Your task to perform on an android device: find snoozed emails in the gmail app Image 0: 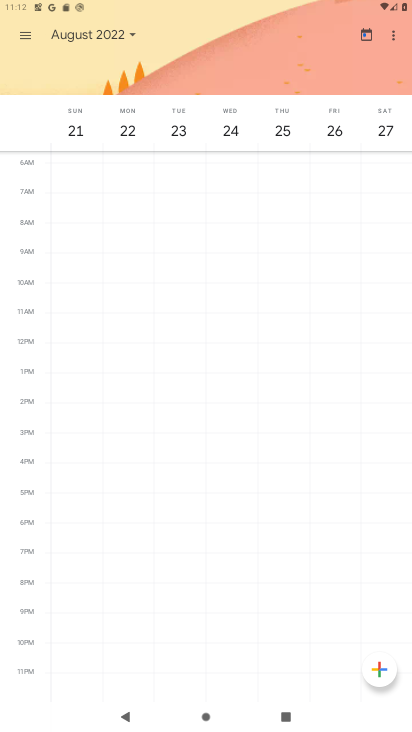
Step 0: press home button
Your task to perform on an android device: find snoozed emails in the gmail app Image 1: 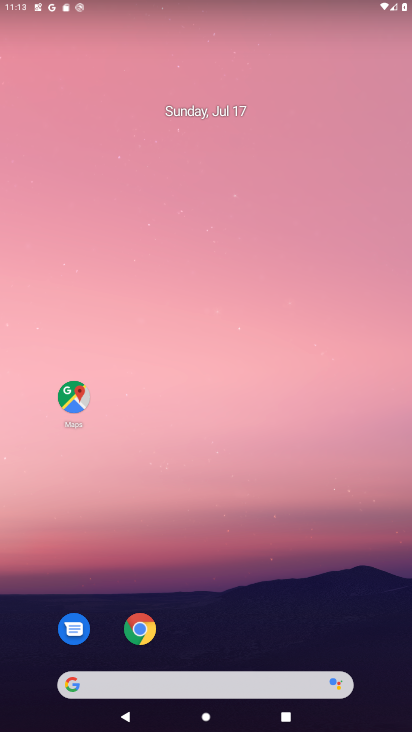
Step 1: drag from (183, 689) to (287, 72)
Your task to perform on an android device: find snoozed emails in the gmail app Image 2: 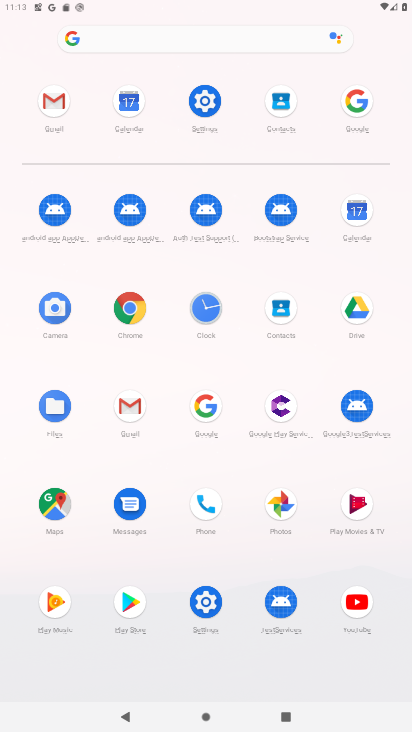
Step 2: click (54, 102)
Your task to perform on an android device: find snoozed emails in the gmail app Image 3: 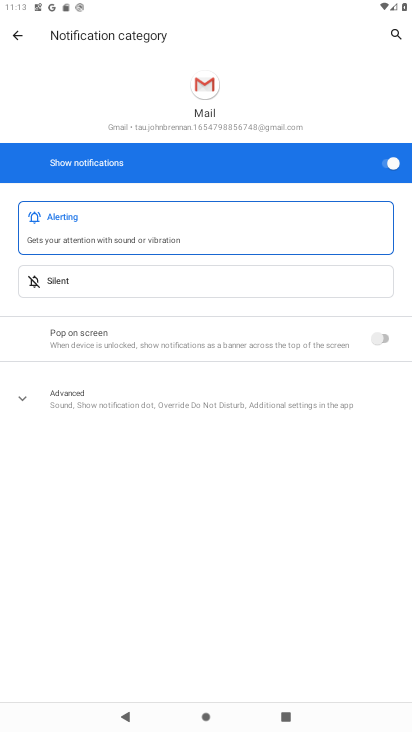
Step 3: press back button
Your task to perform on an android device: find snoozed emails in the gmail app Image 4: 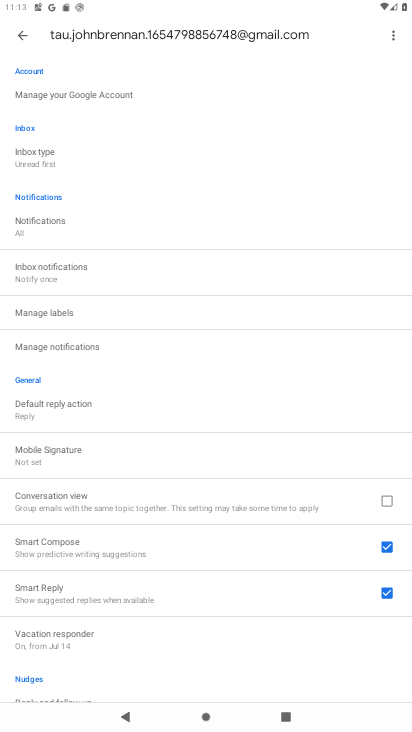
Step 4: press back button
Your task to perform on an android device: find snoozed emails in the gmail app Image 5: 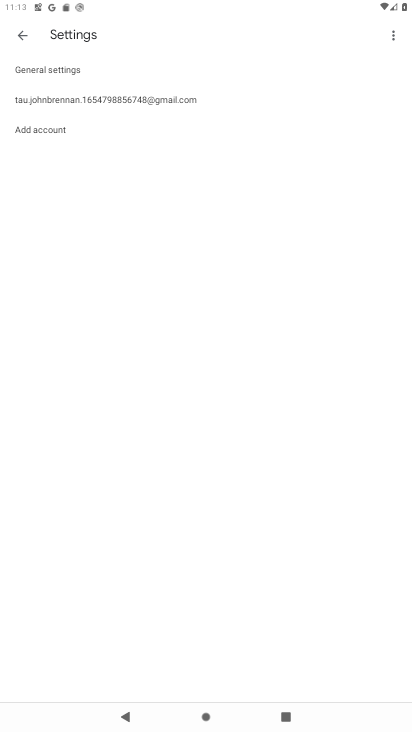
Step 5: press back button
Your task to perform on an android device: find snoozed emails in the gmail app Image 6: 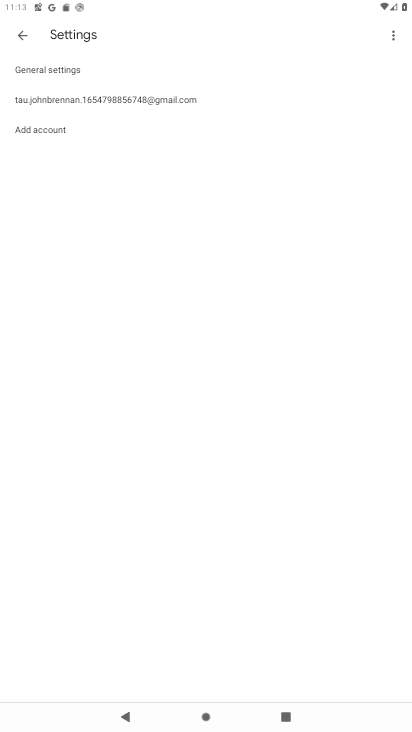
Step 6: press back button
Your task to perform on an android device: find snoozed emails in the gmail app Image 7: 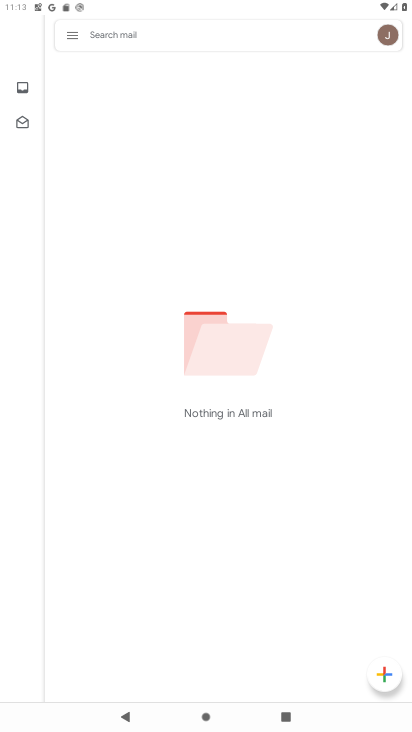
Step 7: click (73, 35)
Your task to perform on an android device: find snoozed emails in the gmail app Image 8: 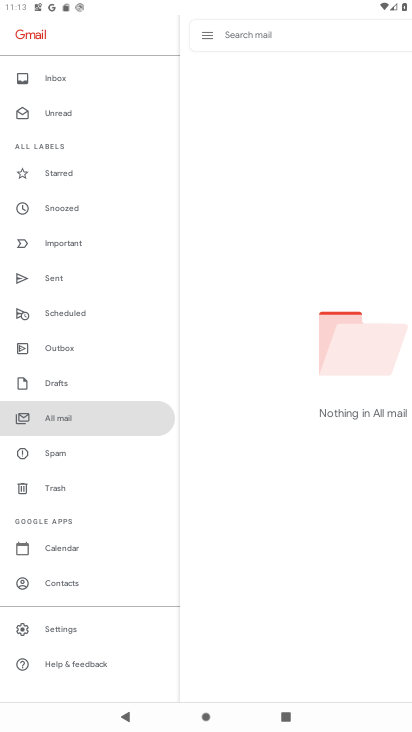
Step 8: click (70, 210)
Your task to perform on an android device: find snoozed emails in the gmail app Image 9: 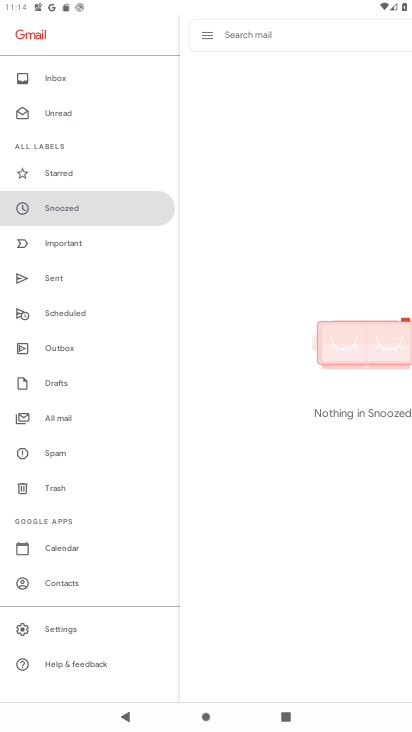
Step 9: click (72, 246)
Your task to perform on an android device: find snoozed emails in the gmail app Image 10: 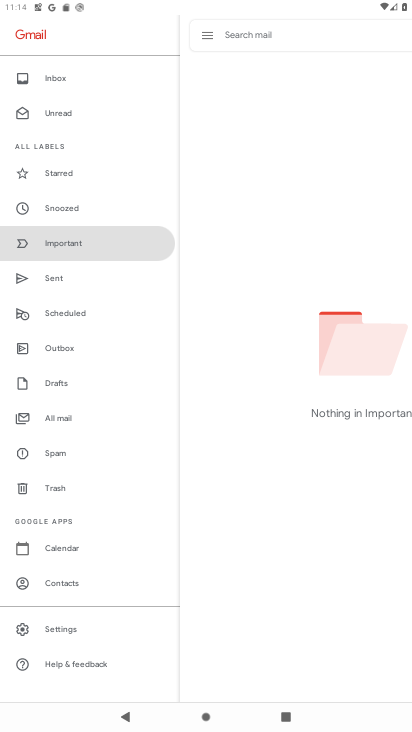
Step 10: click (60, 269)
Your task to perform on an android device: find snoozed emails in the gmail app Image 11: 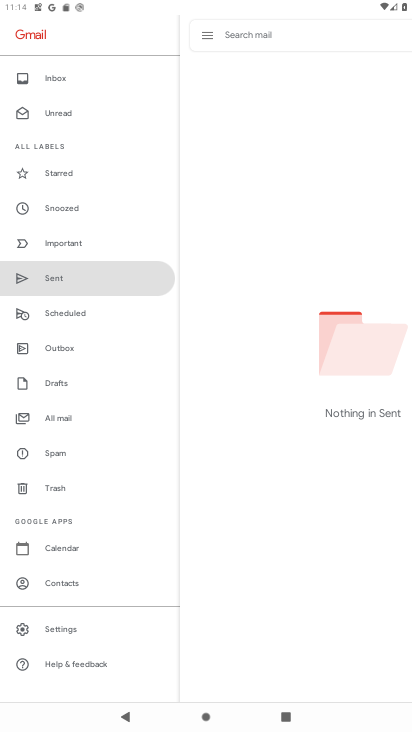
Step 11: click (45, 320)
Your task to perform on an android device: find snoozed emails in the gmail app Image 12: 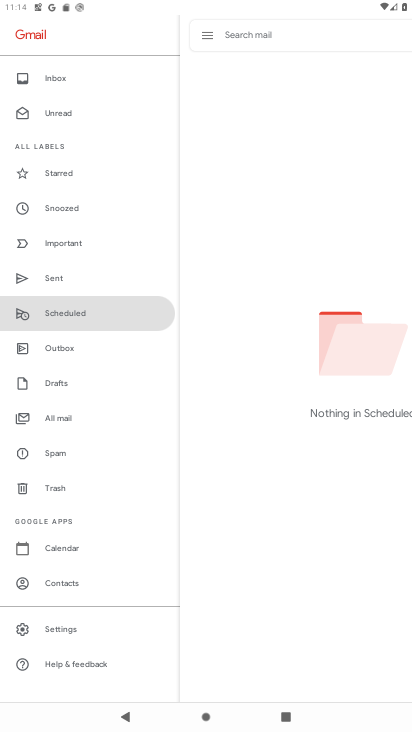
Step 12: task complete